Your task to perform on an android device: turn on sleep mode Image 0: 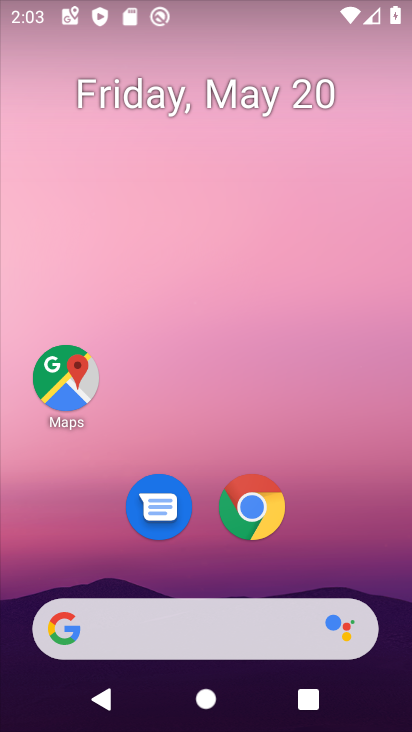
Step 0: drag from (223, 730) to (229, 228)
Your task to perform on an android device: turn on sleep mode Image 1: 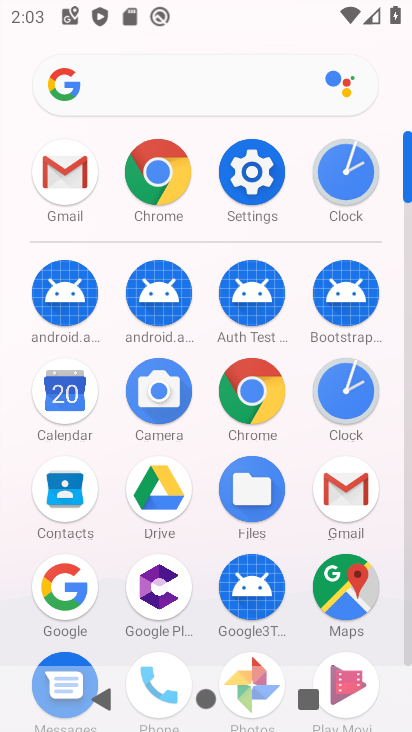
Step 1: click (258, 165)
Your task to perform on an android device: turn on sleep mode Image 2: 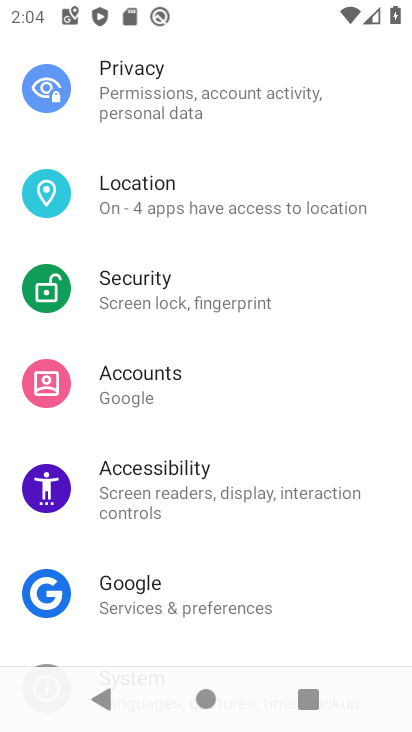
Step 2: task complete